Your task to perform on an android device: Open Google Maps and go to "Timeline" Image 0: 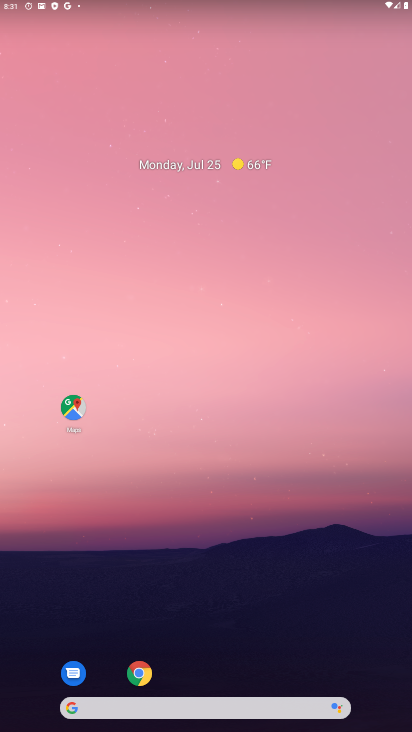
Step 0: drag from (172, 671) to (189, 146)
Your task to perform on an android device: Open Google Maps and go to "Timeline" Image 1: 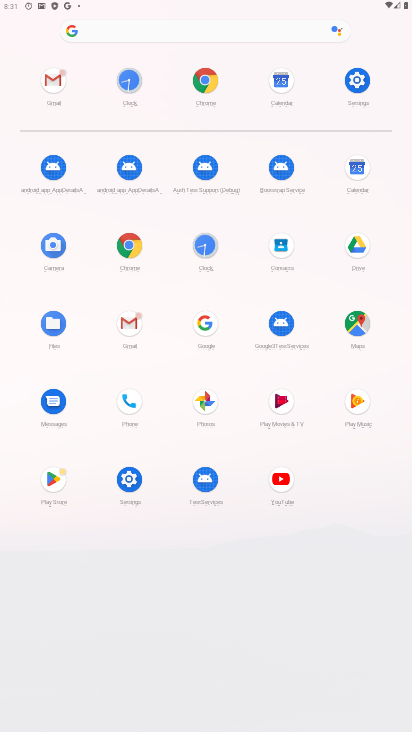
Step 1: click (336, 324)
Your task to perform on an android device: Open Google Maps and go to "Timeline" Image 2: 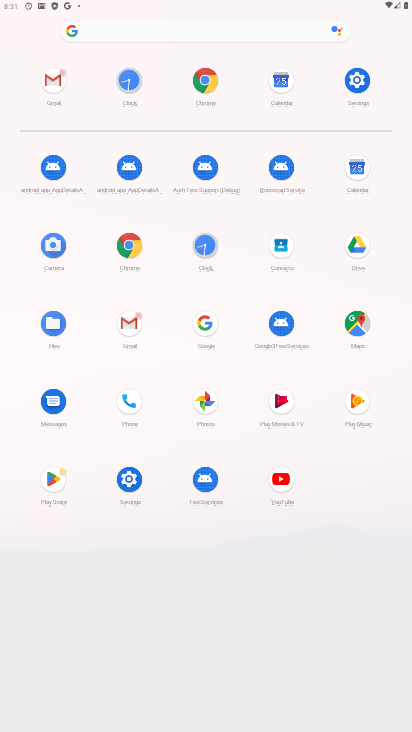
Step 2: click (355, 325)
Your task to perform on an android device: Open Google Maps and go to "Timeline" Image 3: 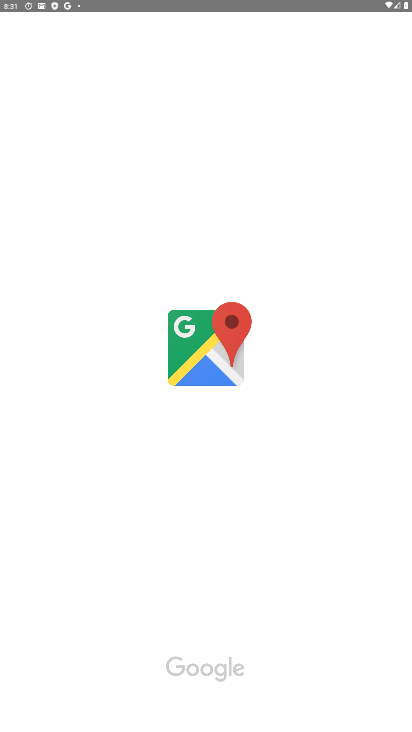
Step 3: drag from (259, 567) to (263, 272)
Your task to perform on an android device: Open Google Maps and go to "Timeline" Image 4: 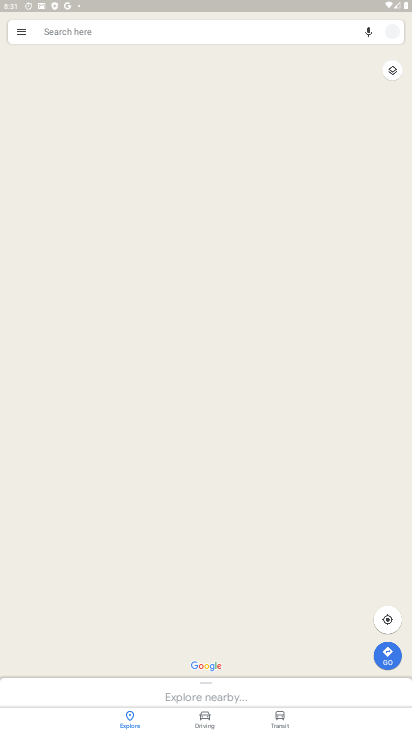
Step 4: click (12, 31)
Your task to perform on an android device: Open Google Maps and go to "Timeline" Image 5: 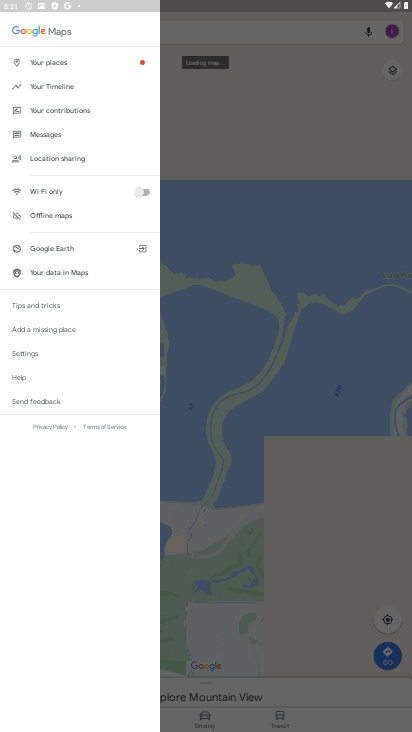
Step 5: click (19, 30)
Your task to perform on an android device: Open Google Maps and go to "Timeline" Image 6: 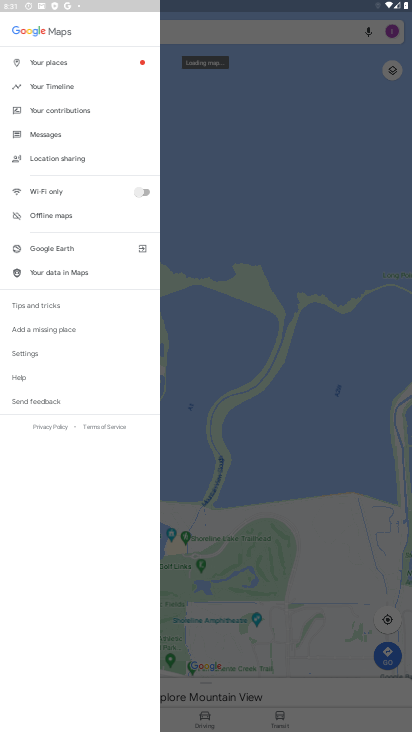
Step 6: click (63, 87)
Your task to perform on an android device: Open Google Maps and go to "Timeline" Image 7: 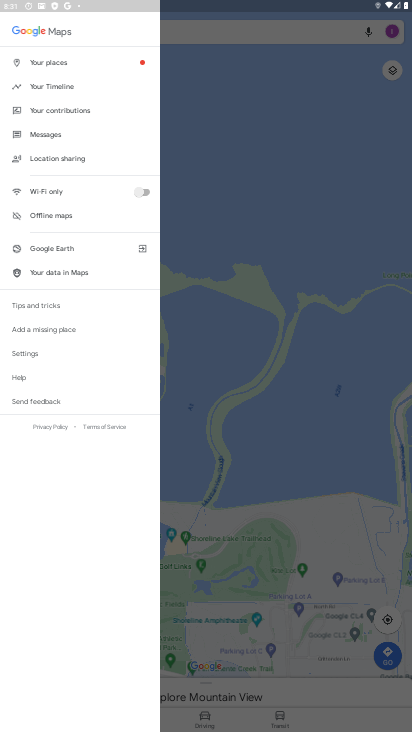
Step 7: click (62, 88)
Your task to perform on an android device: Open Google Maps and go to "Timeline" Image 8: 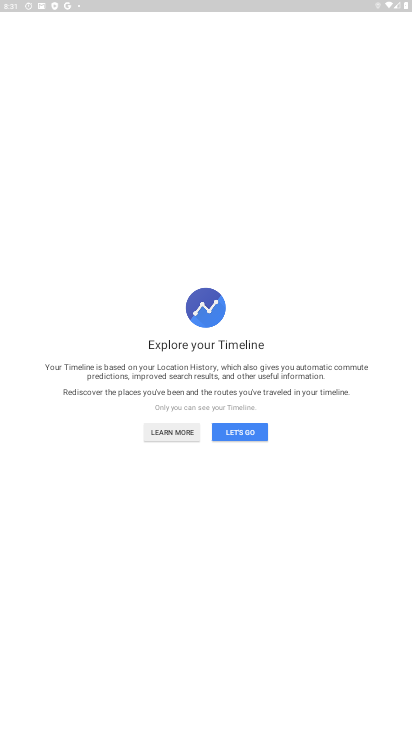
Step 8: click (245, 426)
Your task to perform on an android device: Open Google Maps and go to "Timeline" Image 9: 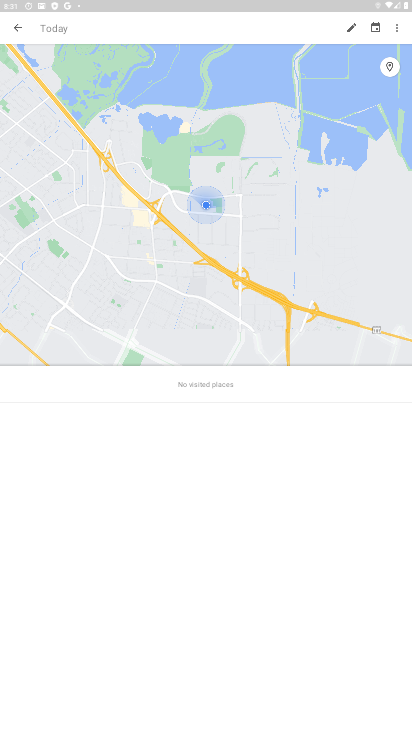
Step 9: task complete